Your task to perform on an android device: check data usage Image 0: 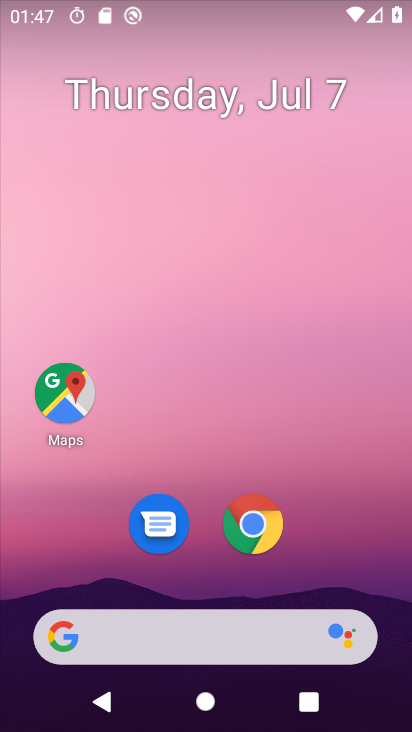
Step 0: drag from (194, 483) to (194, 46)
Your task to perform on an android device: check data usage Image 1: 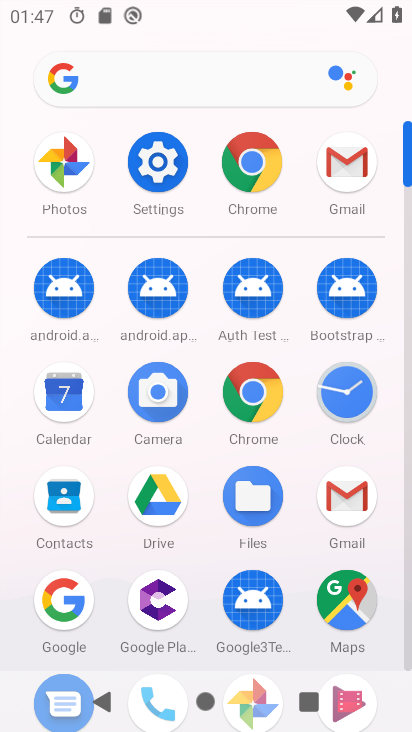
Step 1: click (168, 173)
Your task to perform on an android device: check data usage Image 2: 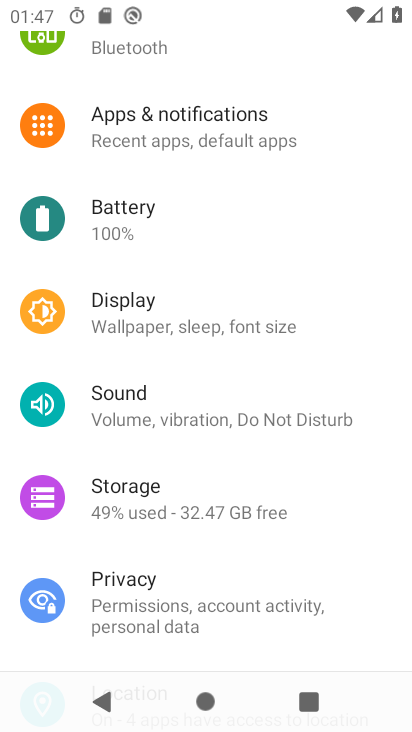
Step 2: drag from (206, 205) to (268, 592)
Your task to perform on an android device: check data usage Image 3: 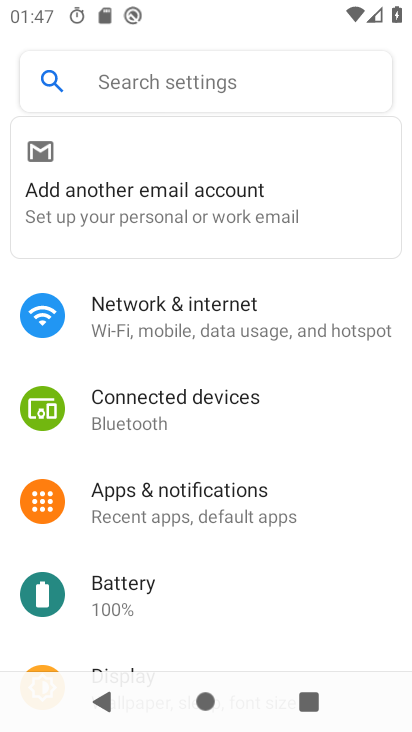
Step 3: click (234, 327)
Your task to perform on an android device: check data usage Image 4: 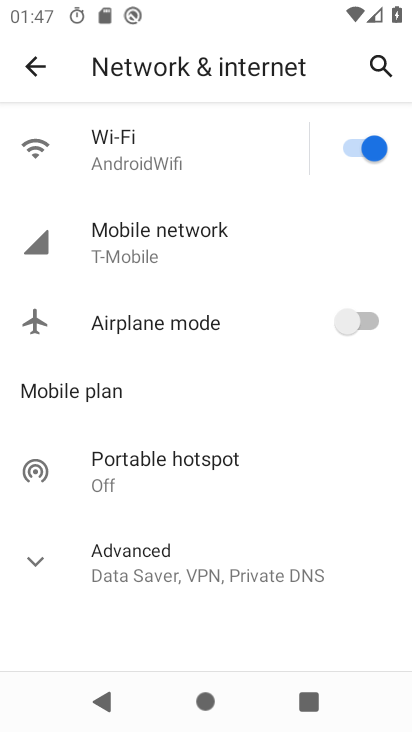
Step 4: click (185, 234)
Your task to perform on an android device: check data usage Image 5: 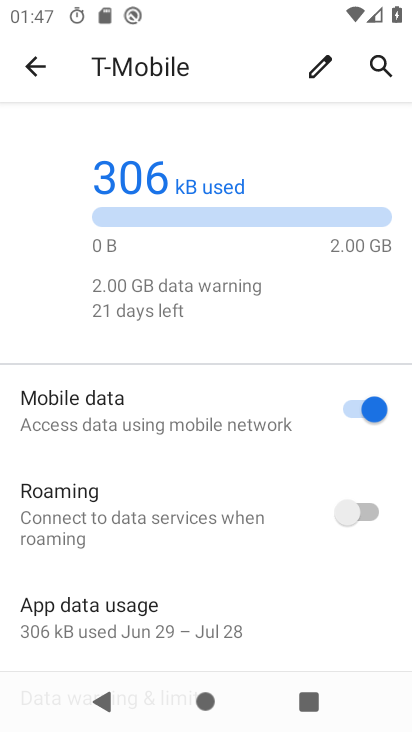
Step 5: task complete